Your task to perform on an android device: show emergency info Image 0: 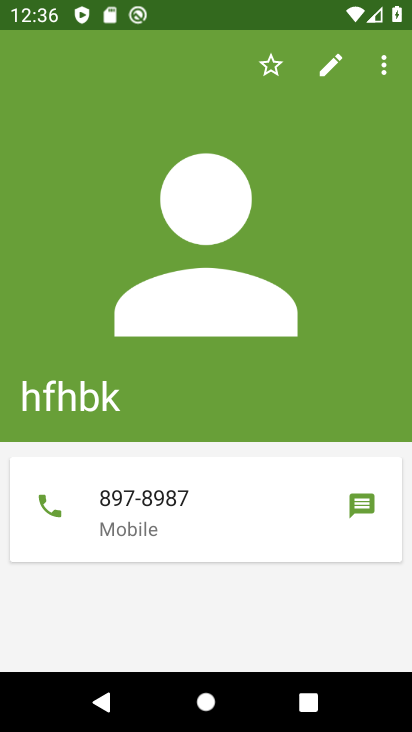
Step 0: press home button
Your task to perform on an android device: show emergency info Image 1: 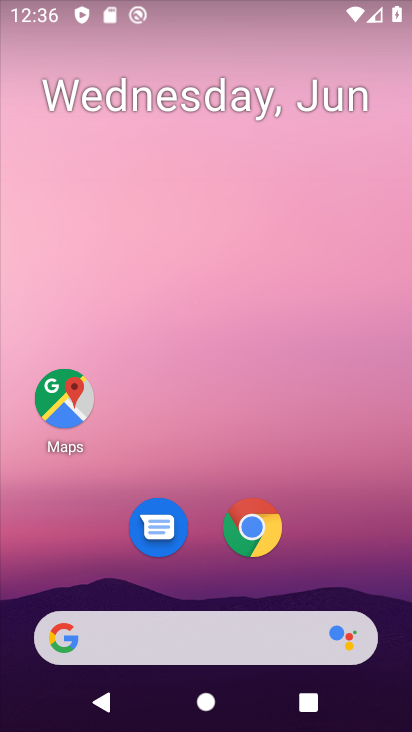
Step 1: drag from (237, 614) to (278, 12)
Your task to perform on an android device: show emergency info Image 2: 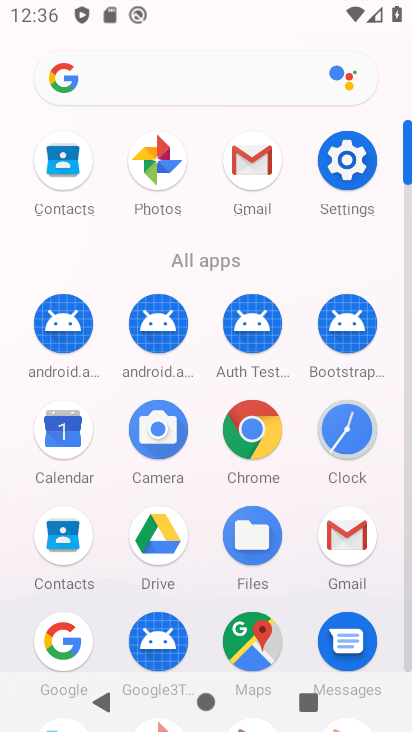
Step 2: click (325, 163)
Your task to perform on an android device: show emergency info Image 3: 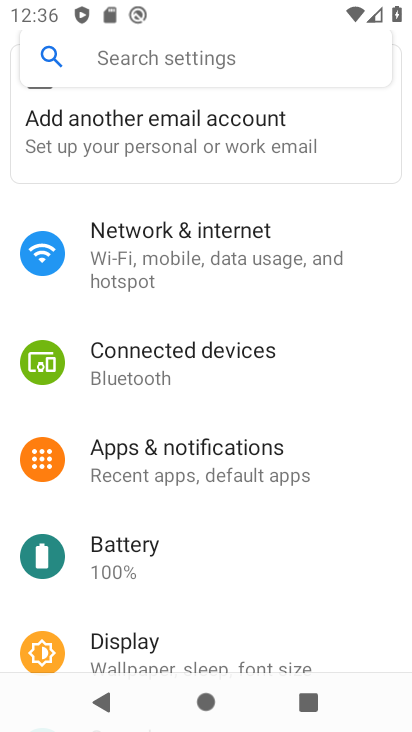
Step 3: drag from (220, 481) to (189, 5)
Your task to perform on an android device: show emergency info Image 4: 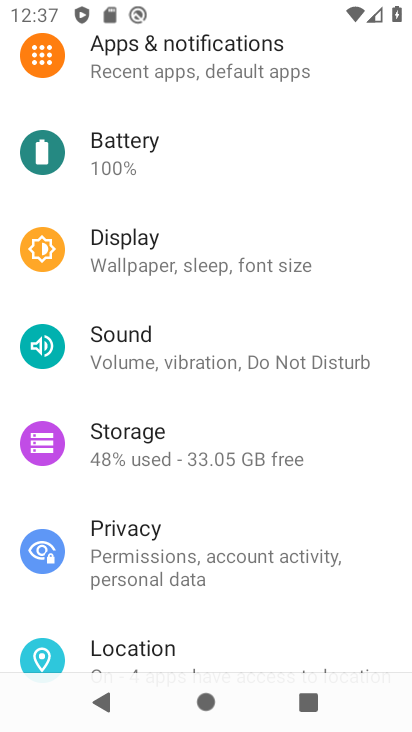
Step 4: drag from (199, 470) to (114, 39)
Your task to perform on an android device: show emergency info Image 5: 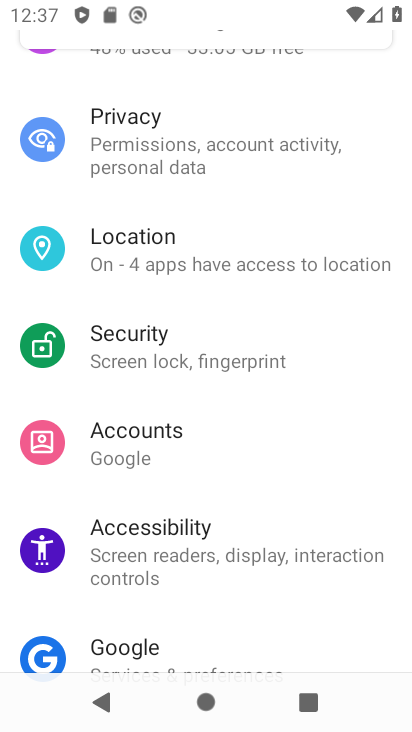
Step 5: drag from (218, 584) to (212, 16)
Your task to perform on an android device: show emergency info Image 6: 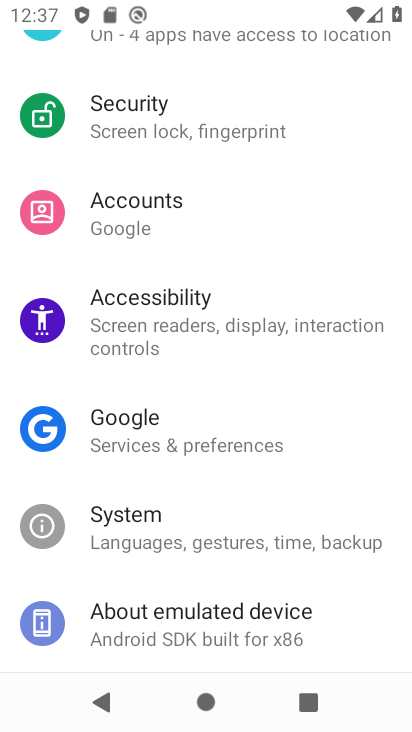
Step 6: click (221, 620)
Your task to perform on an android device: show emergency info Image 7: 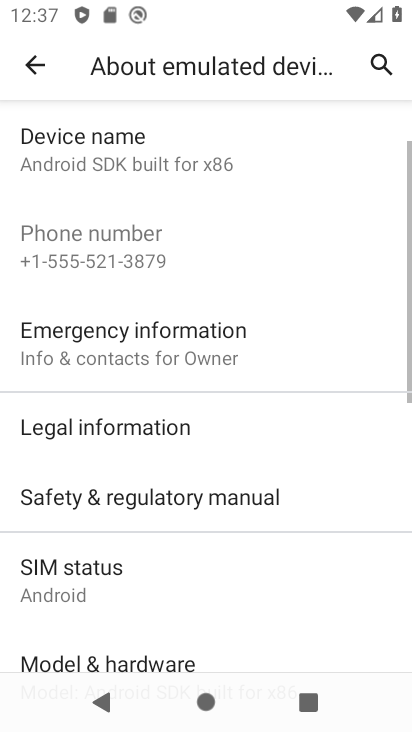
Step 7: click (192, 343)
Your task to perform on an android device: show emergency info Image 8: 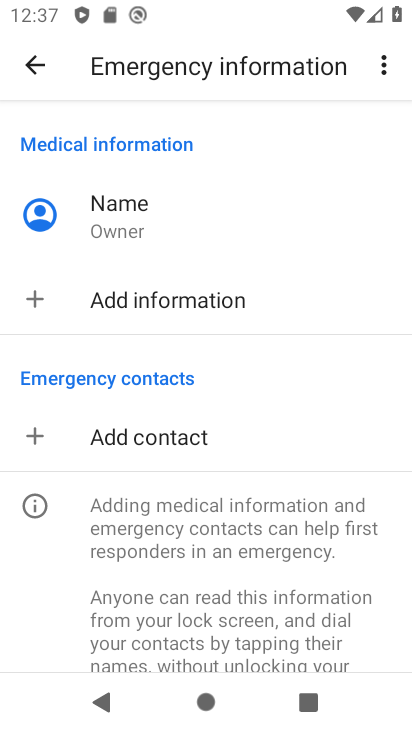
Step 8: task complete